Your task to perform on an android device: turn pop-ups off in chrome Image 0: 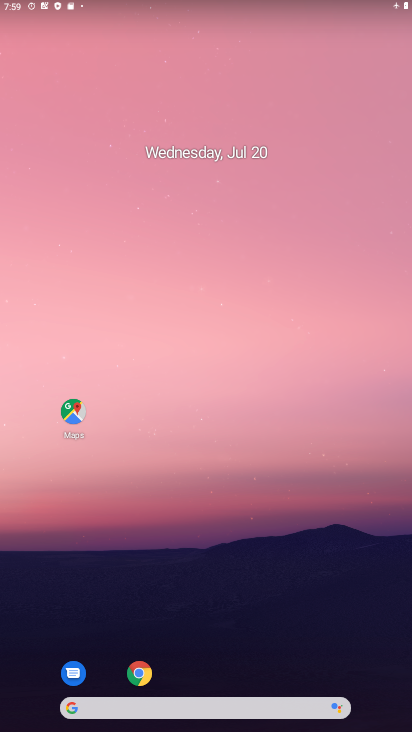
Step 0: drag from (330, 633) to (137, 22)
Your task to perform on an android device: turn pop-ups off in chrome Image 1: 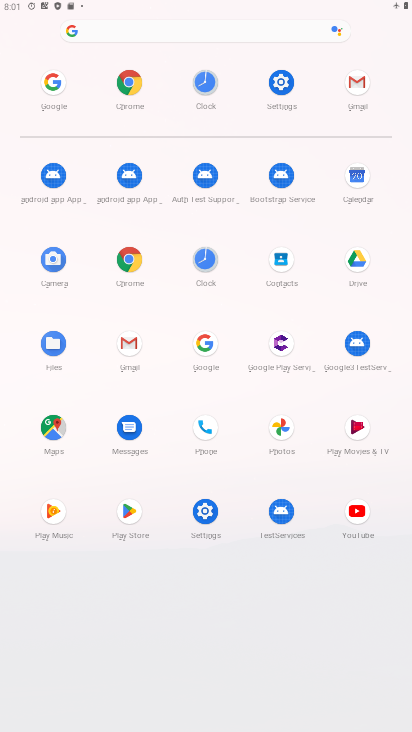
Step 1: click (133, 258)
Your task to perform on an android device: turn pop-ups off in chrome Image 2: 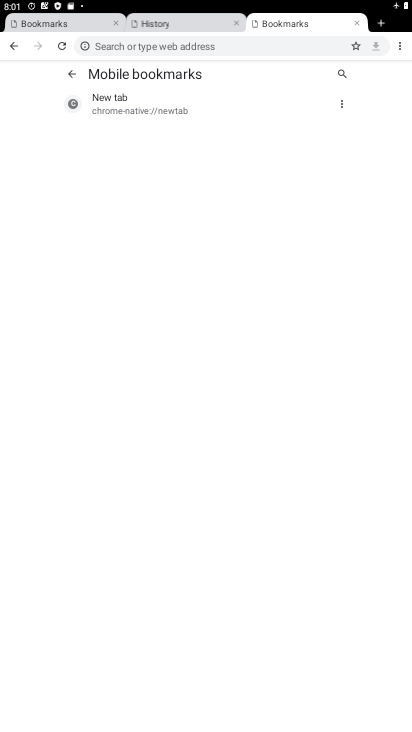
Step 2: click (401, 43)
Your task to perform on an android device: turn pop-ups off in chrome Image 3: 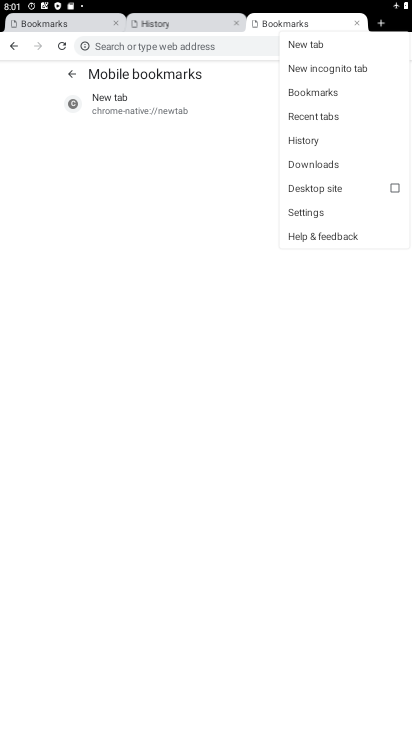
Step 3: click (314, 224)
Your task to perform on an android device: turn pop-ups off in chrome Image 4: 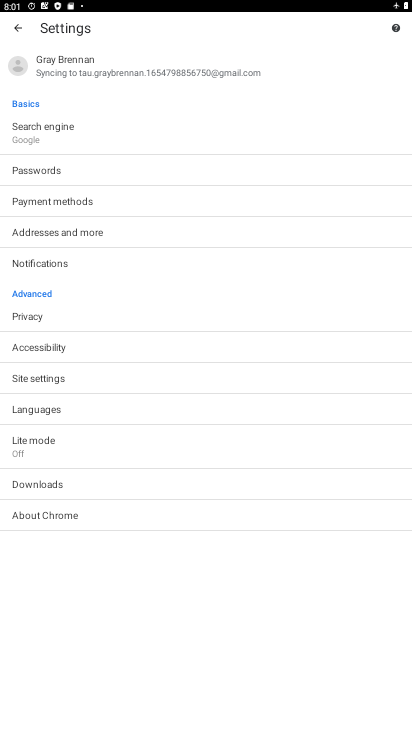
Step 4: click (33, 380)
Your task to perform on an android device: turn pop-ups off in chrome Image 5: 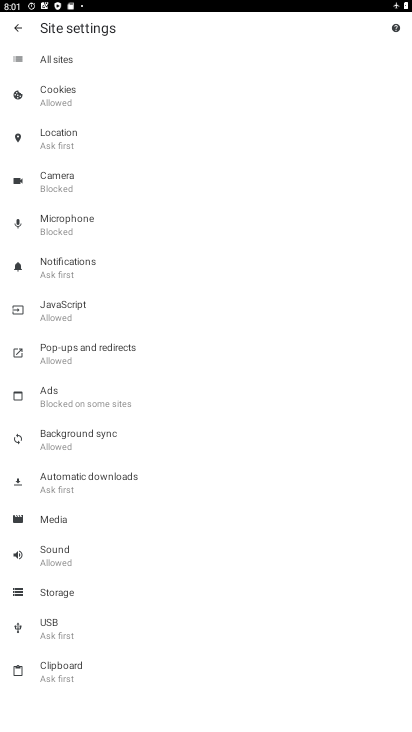
Step 5: click (59, 353)
Your task to perform on an android device: turn pop-ups off in chrome Image 6: 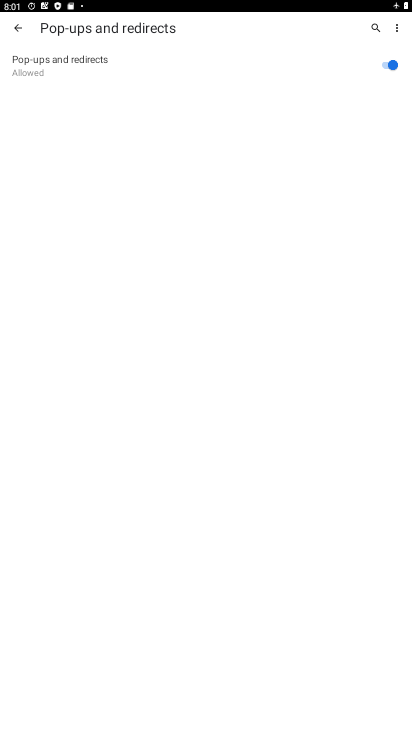
Step 6: click (357, 63)
Your task to perform on an android device: turn pop-ups off in chrome Image 7: 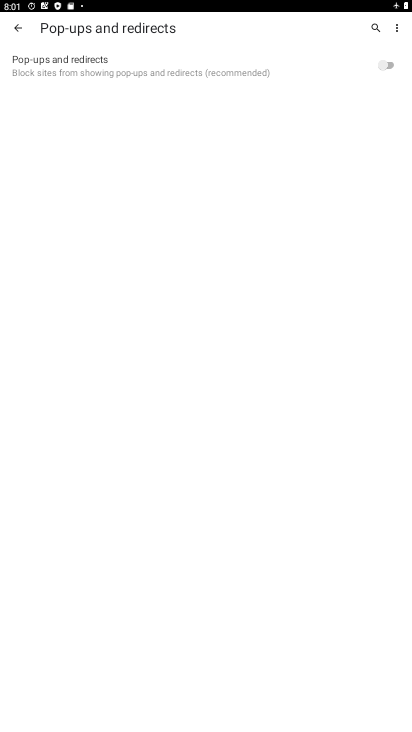
Step 7: task complete